Your task to perform on an android device: Go to Yahoo.com Image 0: 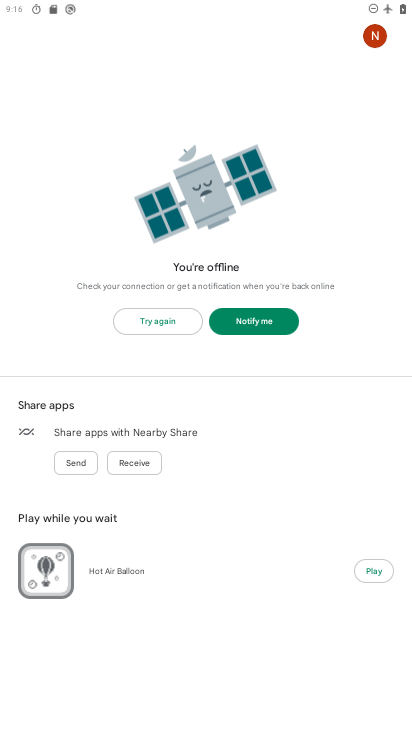
Step 0: press home button
Your task to perform on an android device: Go to Yahoo.com Image 1: 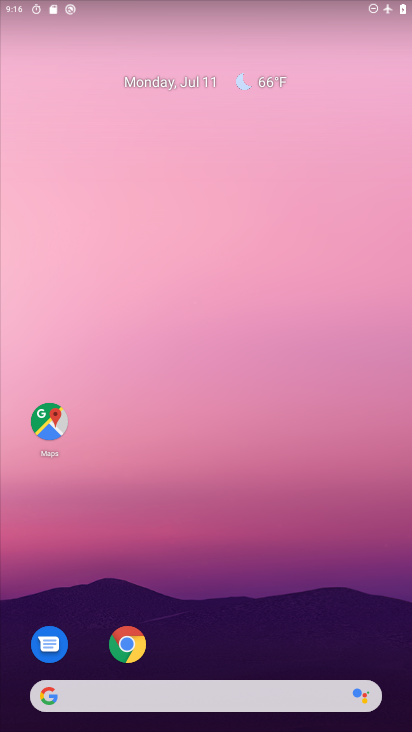
Step 1: drag from (282, 473) to (283, 75)
Your task to perform on an android device: Go to Yahoo.com Image 2: 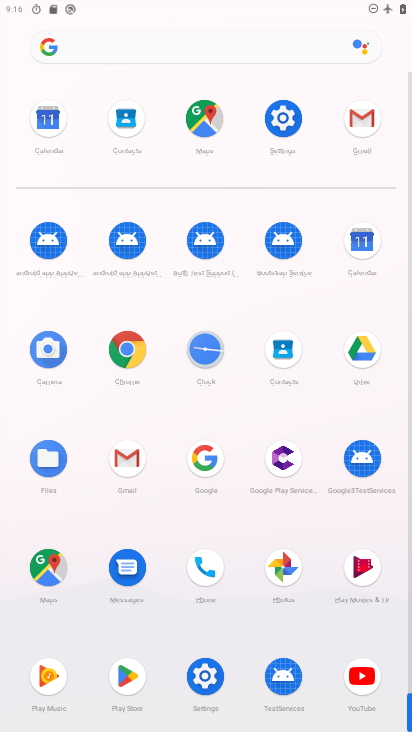
Step 2: click (133, 350)
Your task to perform on an android device: Go to Yahoo.com Image 3: 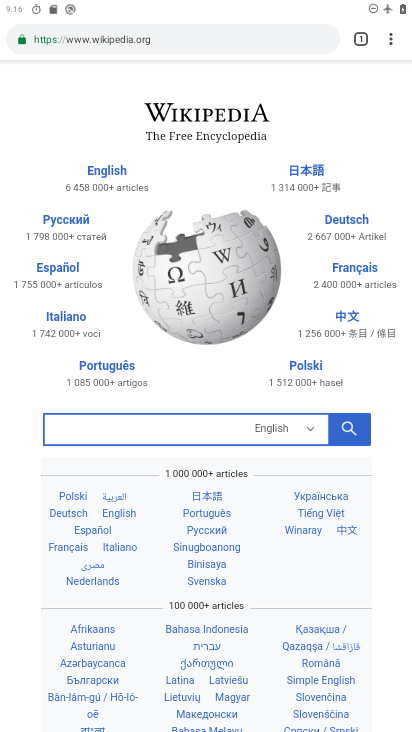
Step 3: click (228, 50)
Your task to perform on an android device: Go to Yahoo.com Image 4: 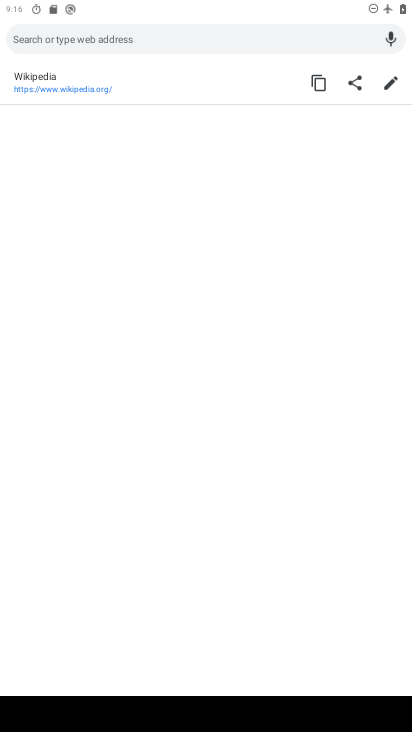
Step 4: type "yahoo.com"
Your task to perform on an android device: Go to Yahoo.com Image 5: 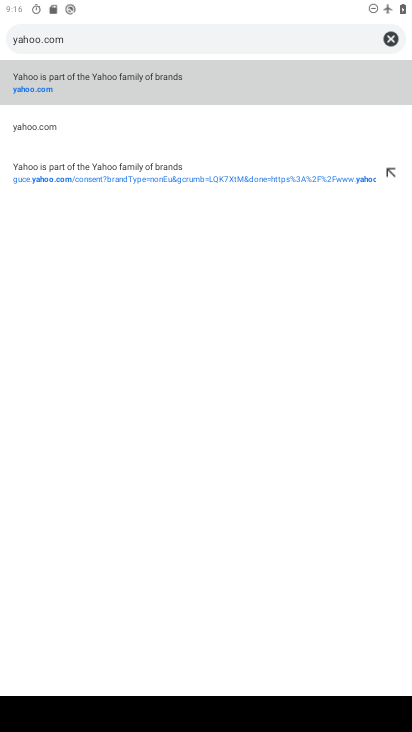
Step 5: click (41, 90)
Your task to perform on an android device: Go to Yahoo.com Image 6: 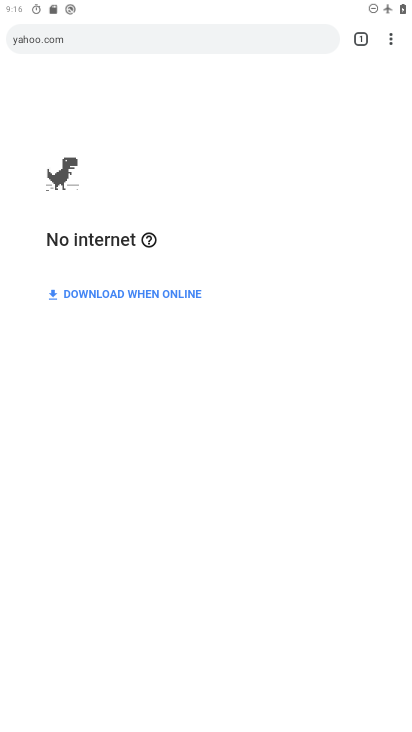
Step 6: task complete